Your task to perform on an android device: Play the last video I watched on Youtube Image 0: 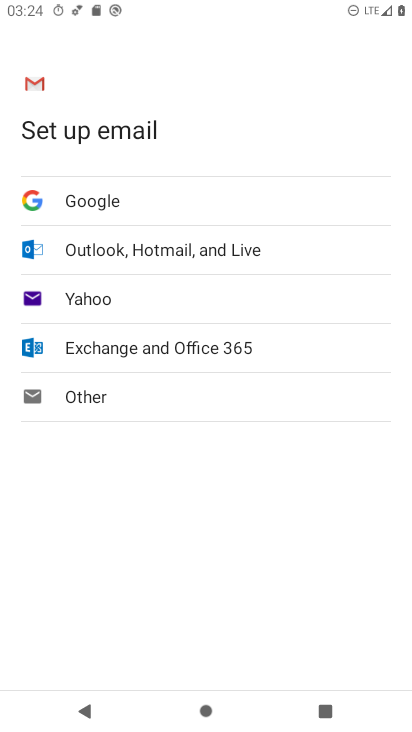
Step 0: press home button
Your task to perform on an android device: Play the last video I watched on Youtube Image 1: 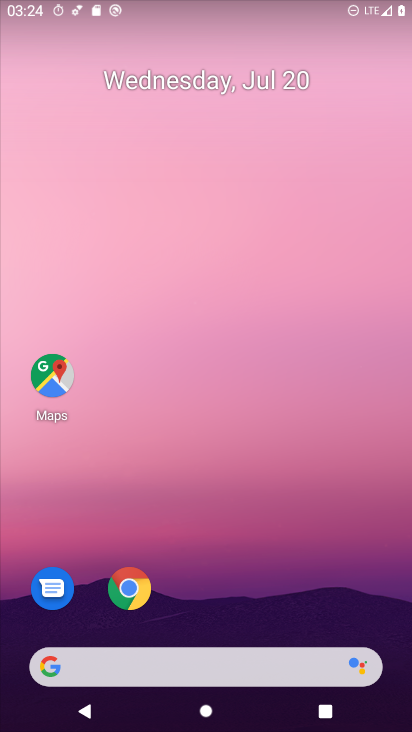
Step 1: drag from (212, 648) to (134, 97)
Your task to perform on an android device: Play the last video I watched on Youtube Image 2: 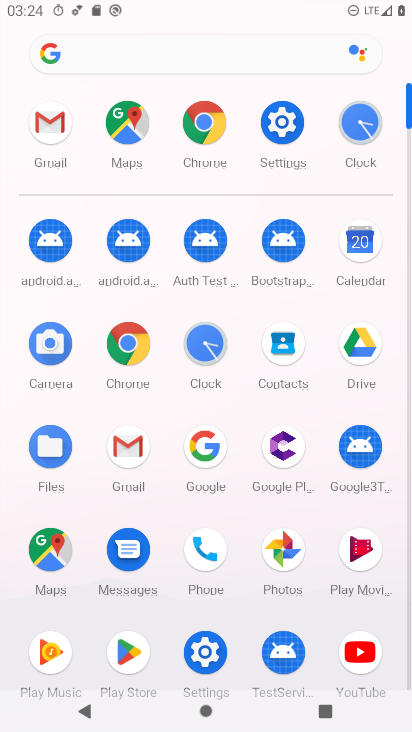
Step 2: click (357, 655)
Your task to perform on an android device: Play the last video I watched on Youtube Image 3: 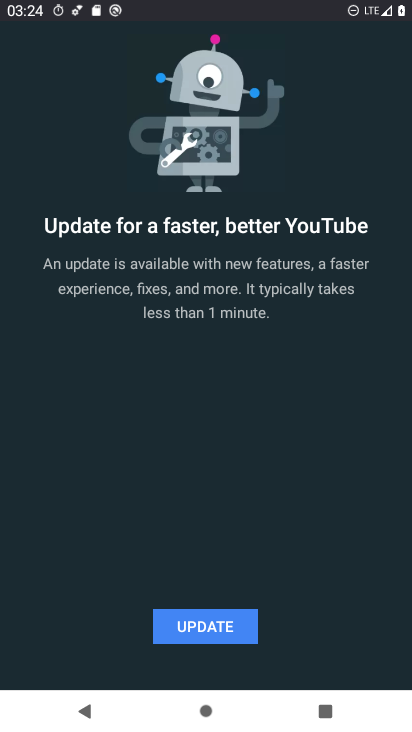
Step 3: click (164, 638)
Your task to perform on an android device: Play the last video I watched on Youtube Image 4: 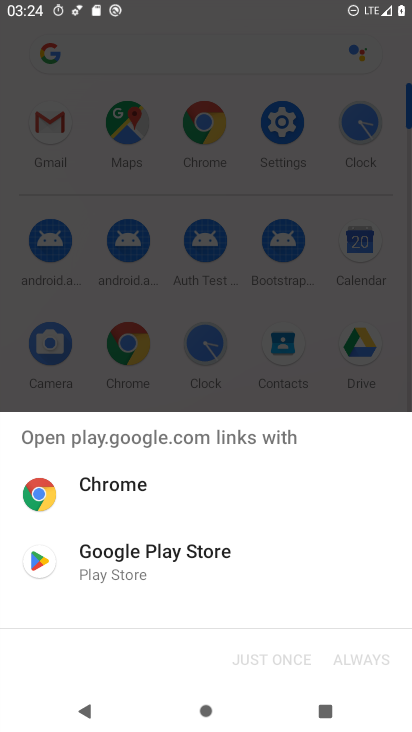
Step 4: click (111, 554)
Your task to perform on an android device: Play the last video I watched on Youtube Image 5: 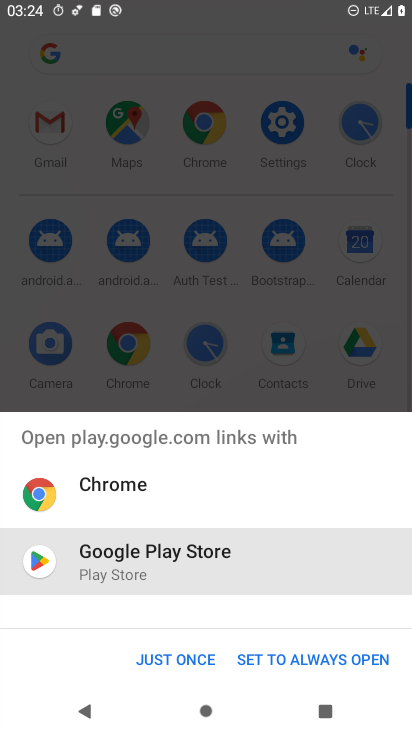
Step 5: click (167, 666)
Your task to perform on an android device: Play the last video I watched on Youtube Image 6: 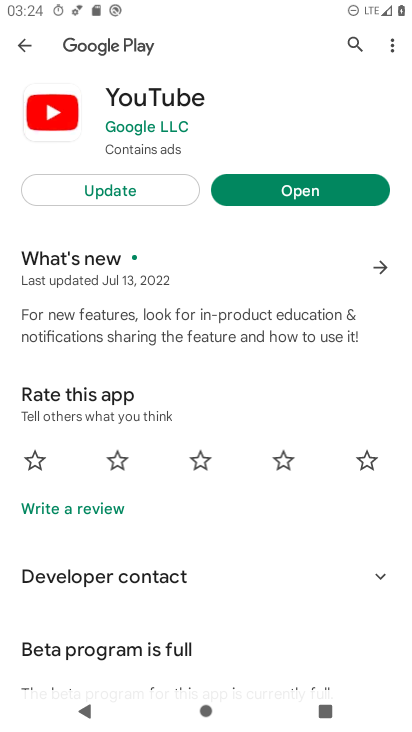
Step 6: click (149, 197)
Your task to perform on an android device: Play the last video I watched on Youtube Image 7: 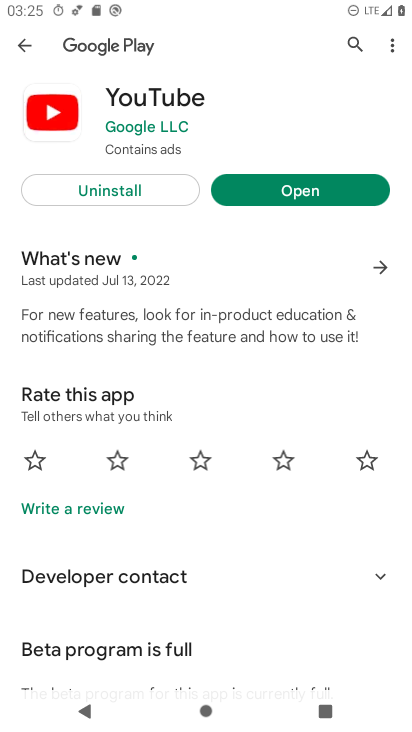
Step 7: click (319, 192)
Your task to perform on an android device: Play the last video I watched on Youtube Image 8: 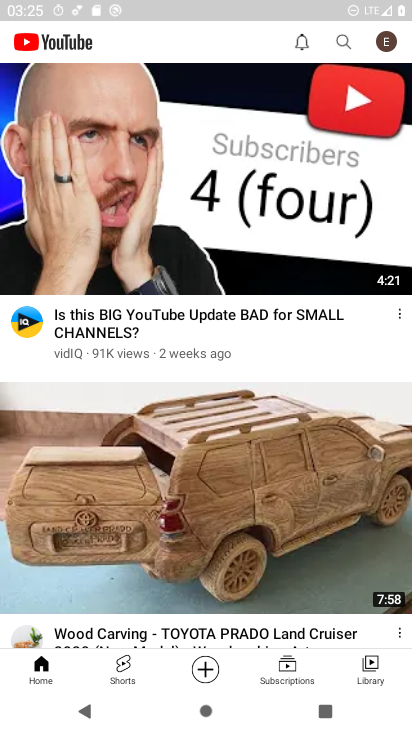
Step 8: click (376, 674)
Your task to perform on an android device: Play the last video I watched on Youtube Image 9: 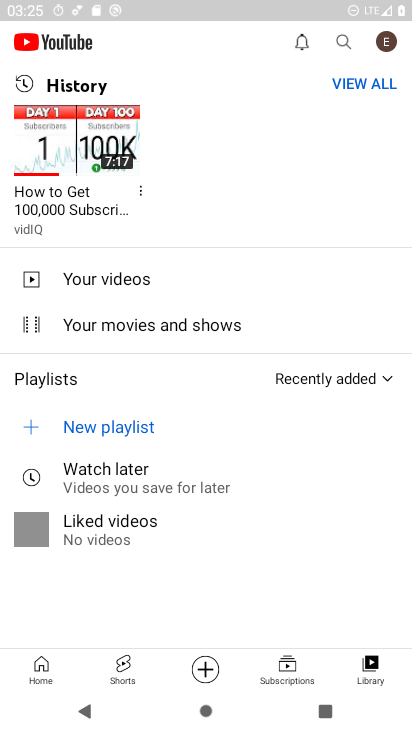
Step 9: click (107, 186)
Your task to perform on an android device: Play the last video I watched on Youtube Image 10: 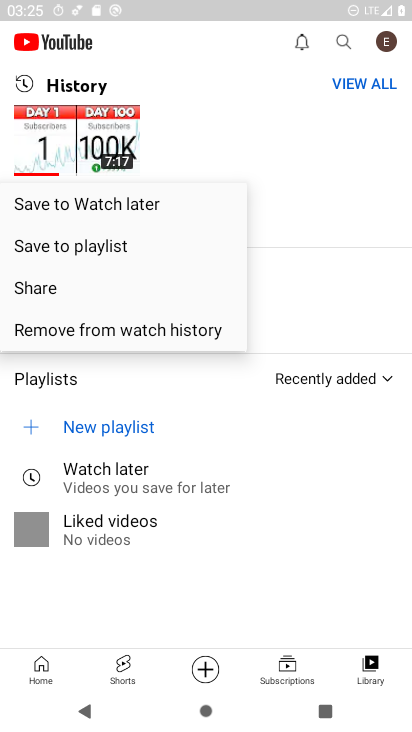
Step 10: click (59, 140)
Your task to perform on an android device: Play the last video I watched on Youtube Image 11: 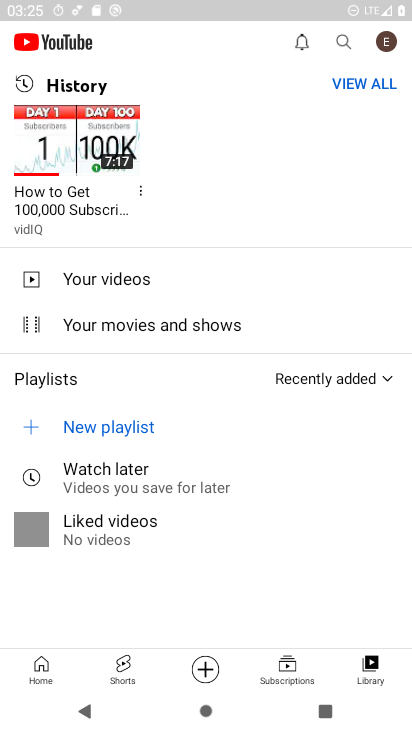
Step 11: click (59, 140)
Your task to perform on an android device: Play the last video I watched on Youtube Image 12: 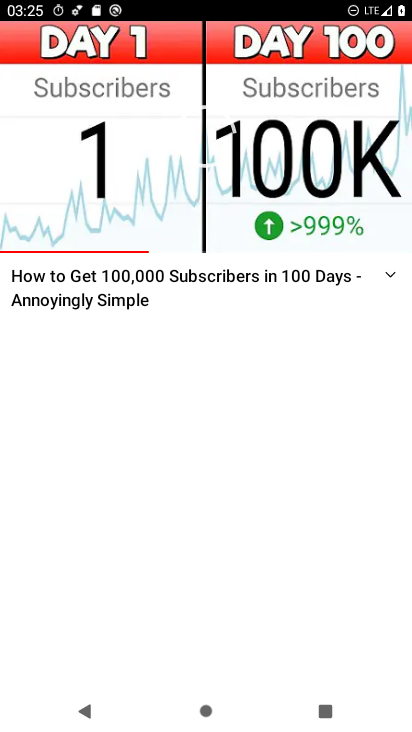
Step 12: click (196, 148)
Your task to perform on an android device: Play the last video I watched on Youtube Image 13: 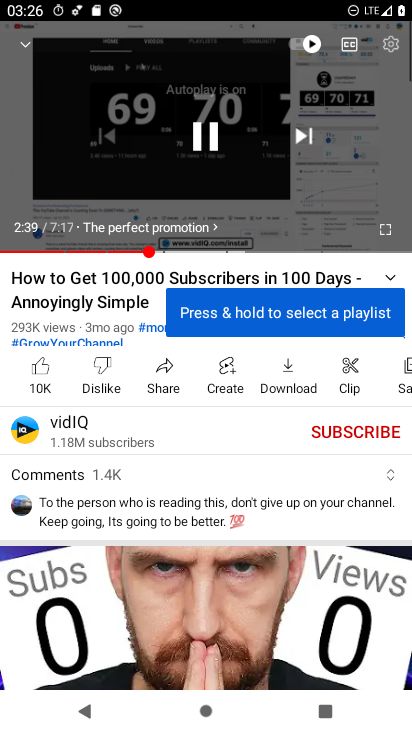
Step 13: task complete